Your task to perform on an android device: Open Chrome and go to the settings page Image 0: 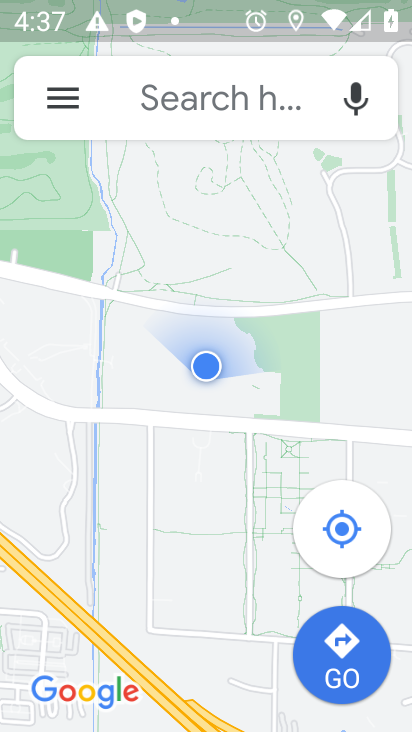
Step 0: press home button
Your task to perform on an android device: Open Chrome and go to the settings page Image 1: 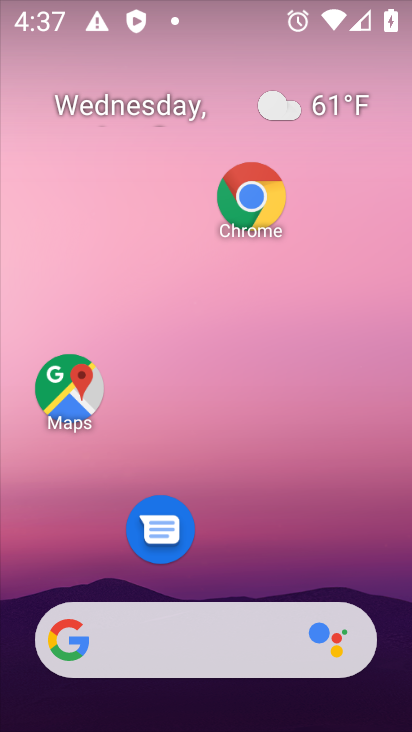
Step 1: click (256, 209)
Your task to perform on an android device: Open Chrome and go to the settings page Image 2: 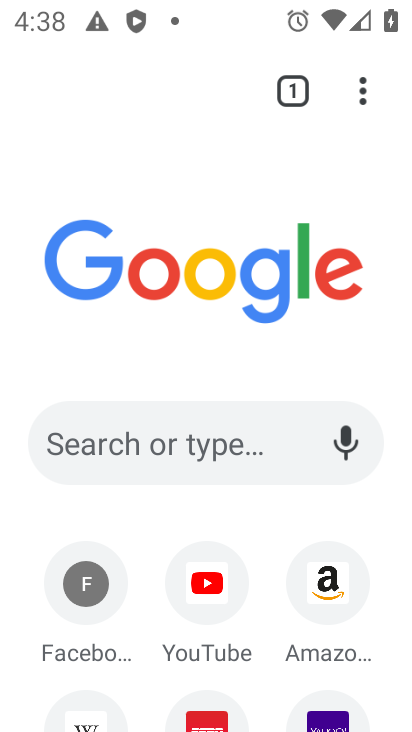
Step 2: click (349, 85)
Your task to perform on an android device: Open Chrome and go to the settings page Image 3: 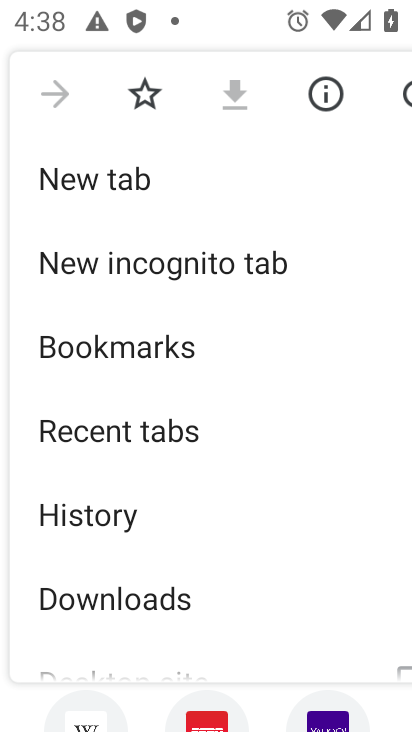
Step 3: drag from (110, 546) to (125, 222)
Your task to perform on an android device: Open Chrome and go to the settings page Image 4: 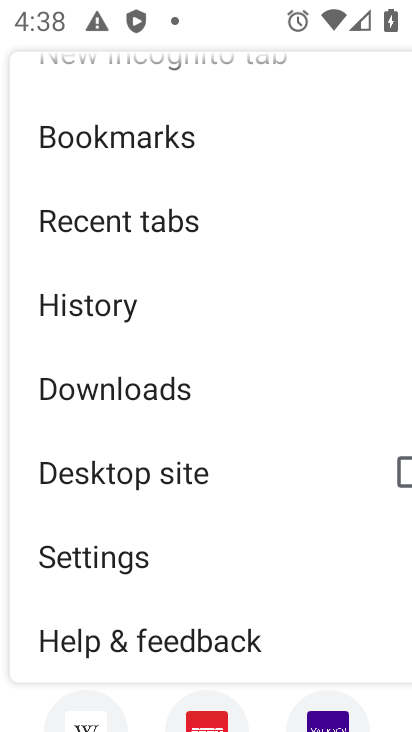
Step 4: click (98, 572)
Your task to perform on an android device: Open Chrome and go to the settings page Image 5: 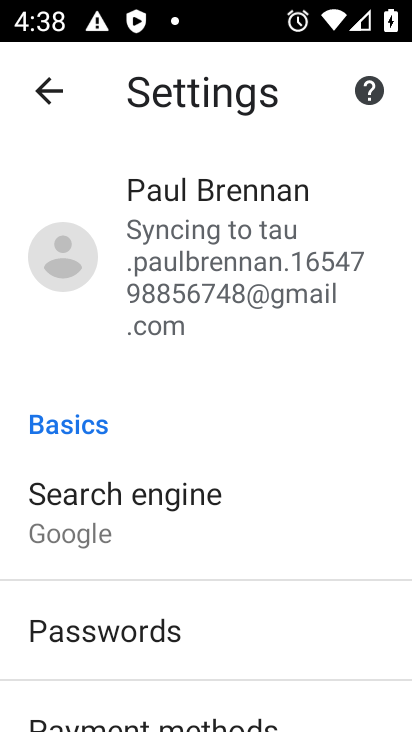
Step 5: task complete